Your task to perform on an android device: set the timer Image 0: 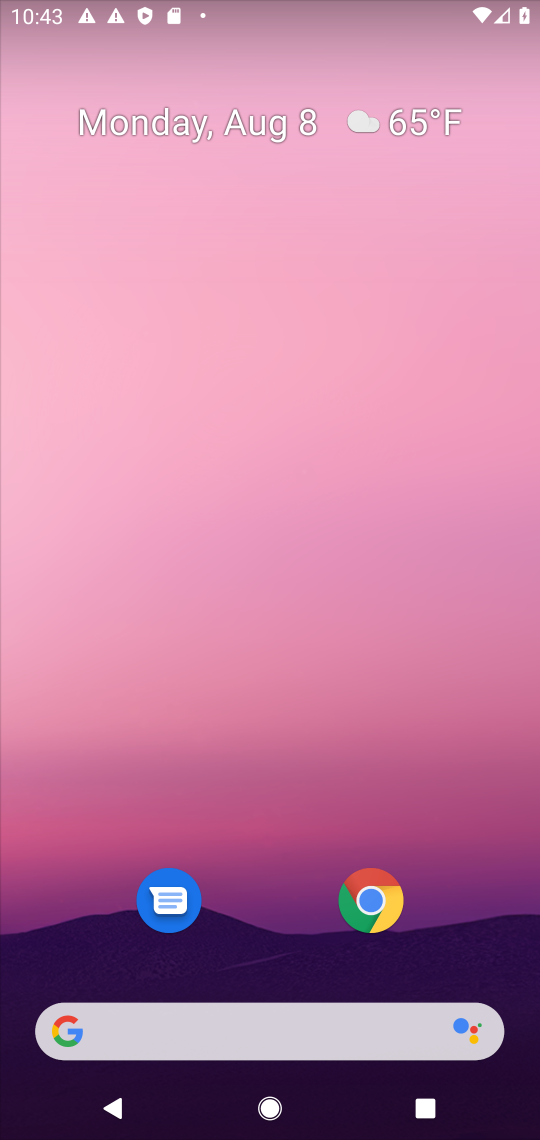
Step 0: drag from (296, 319) to (296, 108)
Your task to perform on an android device: set the timer Image 1: 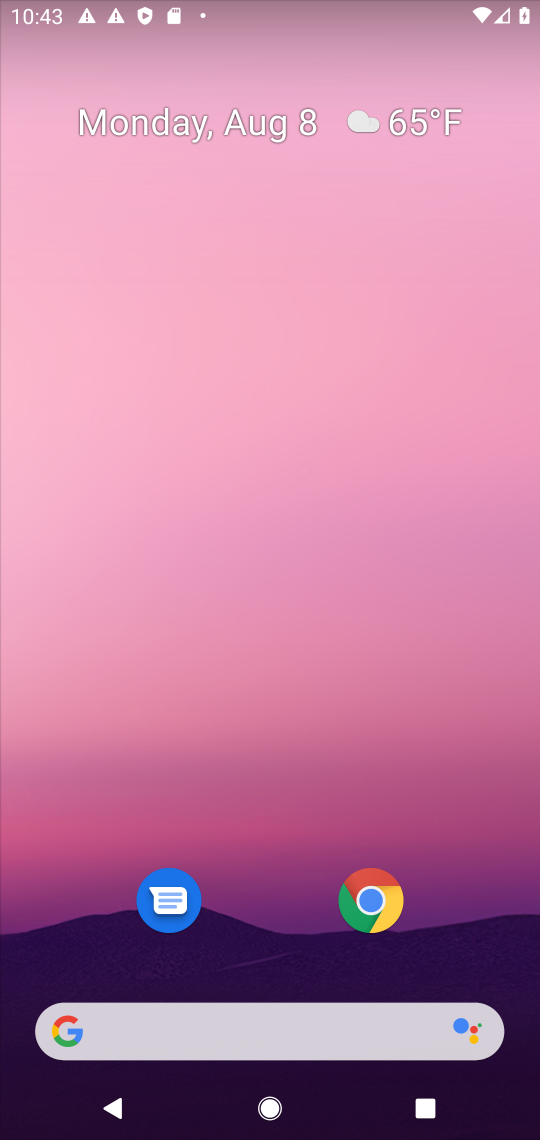
Step 1: drag from (273, 887) to (176, 38)
Your task to perform on an android device: set the timer Image 2: 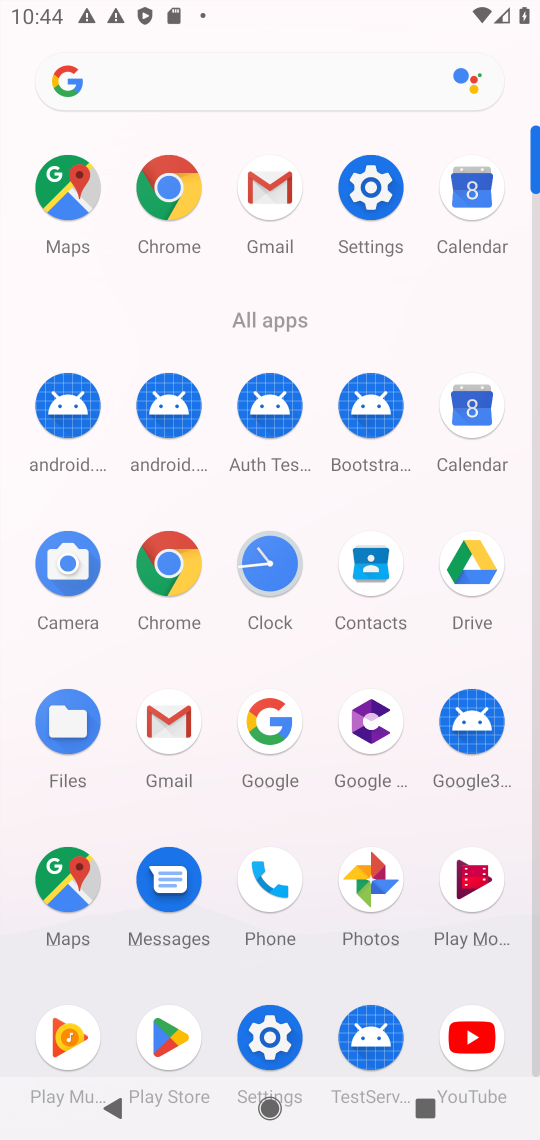
Step 2: click (263, 567)
Your task to perform on an android device: set the timer Image 3: 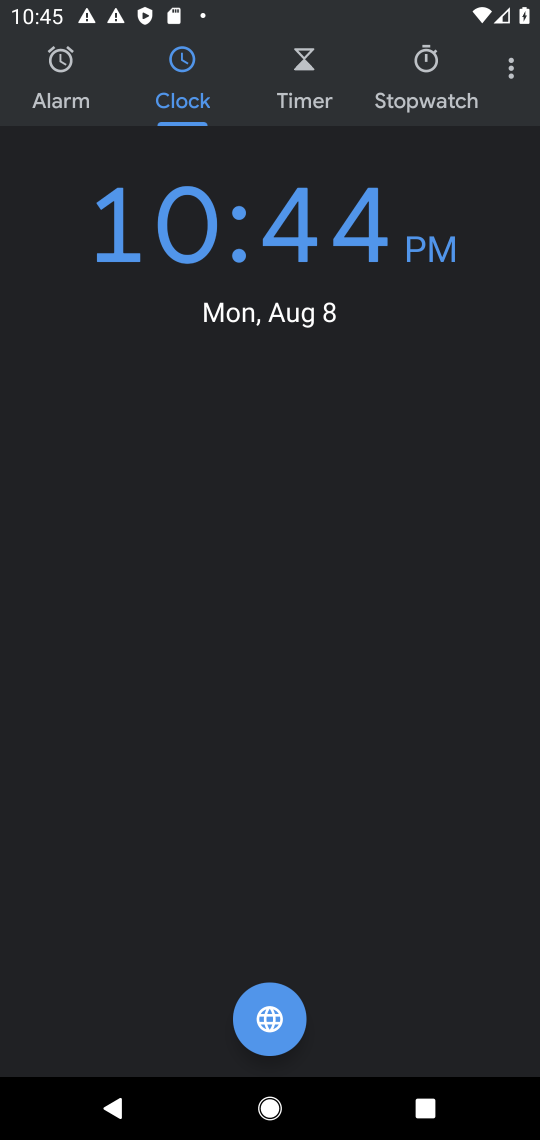
Step 3: click (297, 79)
Your task to perform on an android device: set the timer Image 4: 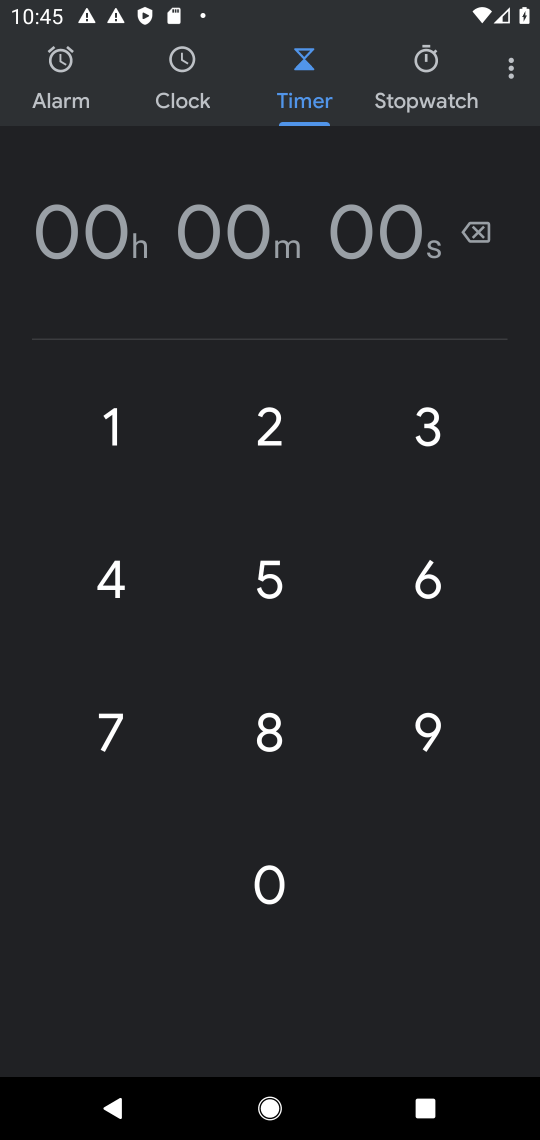
Step 4: click (111, 438)
Your task to perform on an android device: set the timer Image 5: 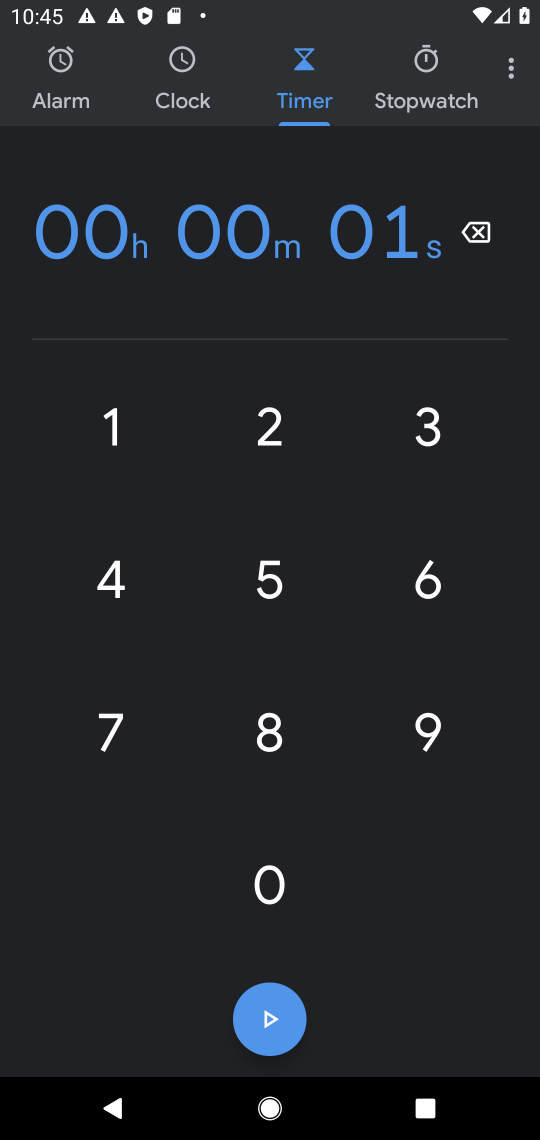
Step 5: click (278, 882)
Your task to perform on an android device: set the timer Image 6: 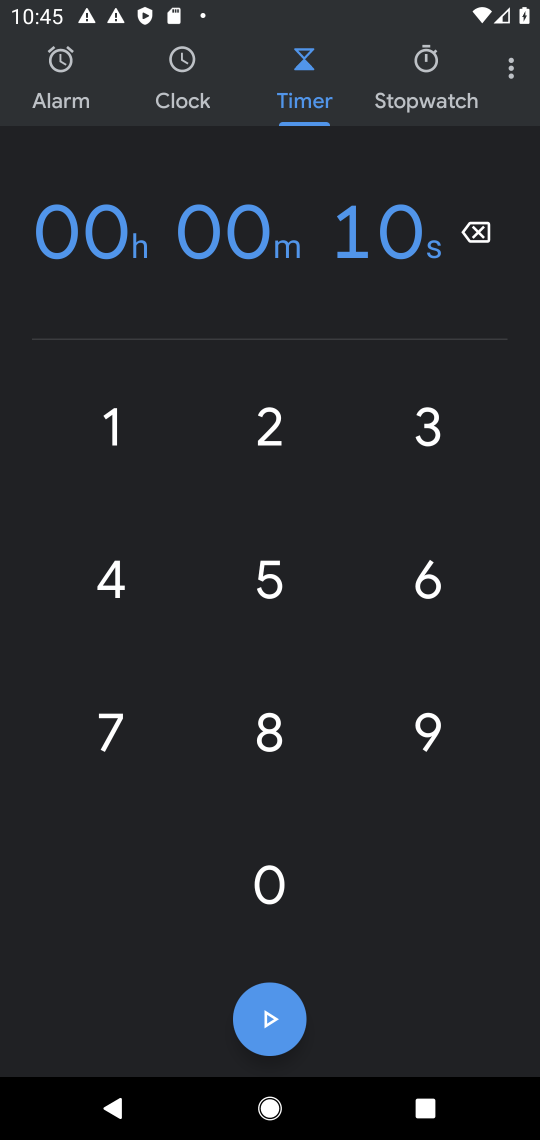
Step 6: click (278, 882)
Your task to perform on an android device: set the timer Image 7: 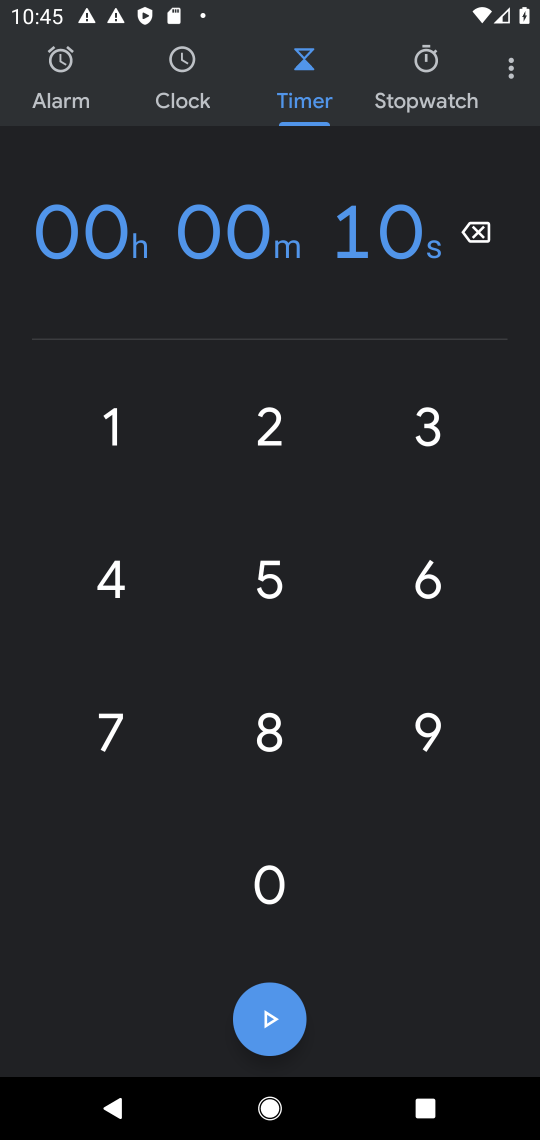
Step 7: click (278, 882)
Your task to perform on an android device: set the timer Image 8: 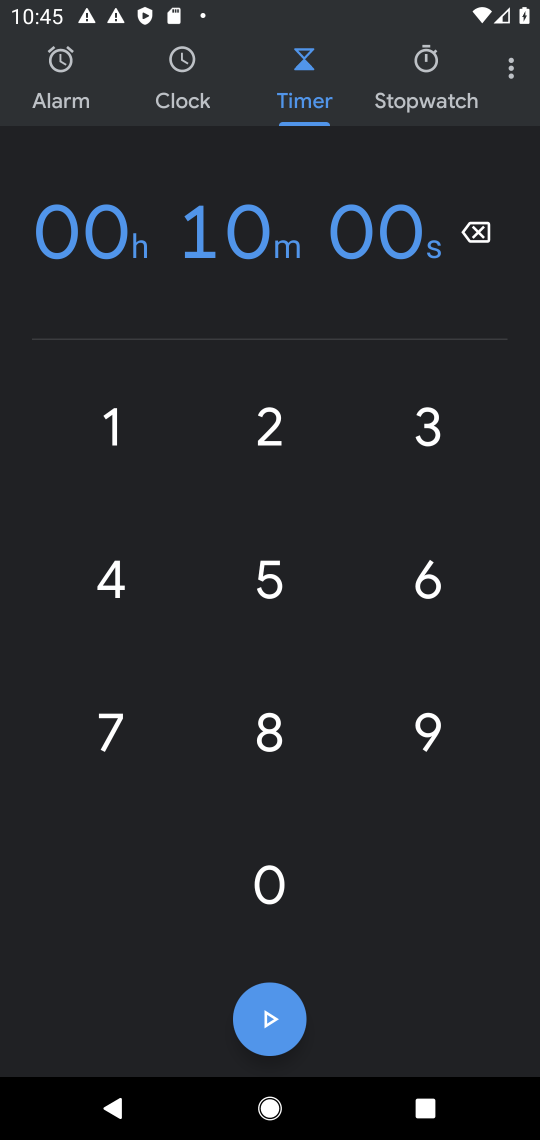
Step 8: click (275, 989)
Your task to perform on an android device: set the timer Image 9: 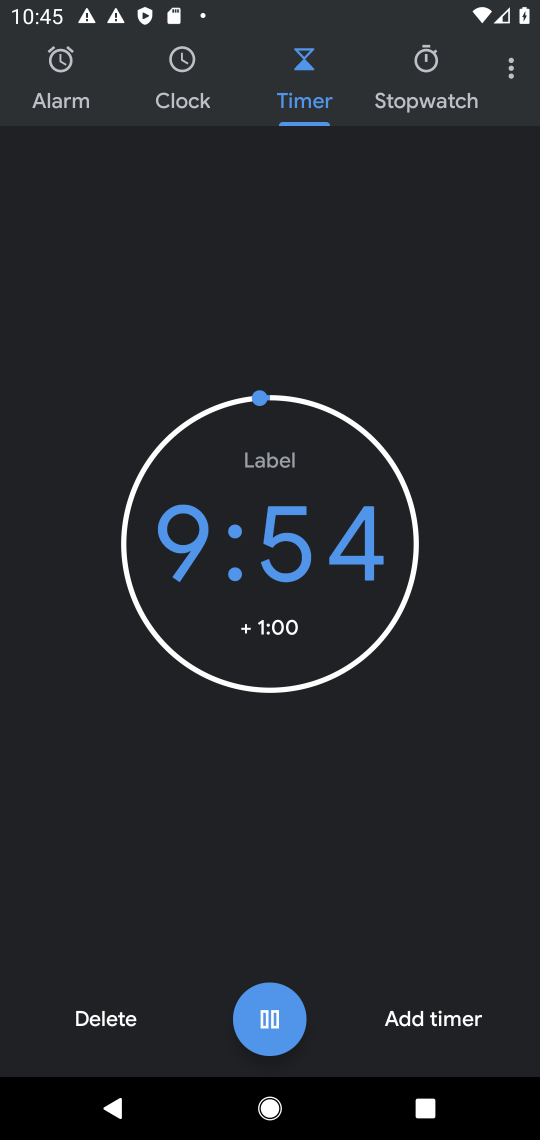
Step 9: click (461, 1011)
Your task to perform on an android device: set the timer Image 10: 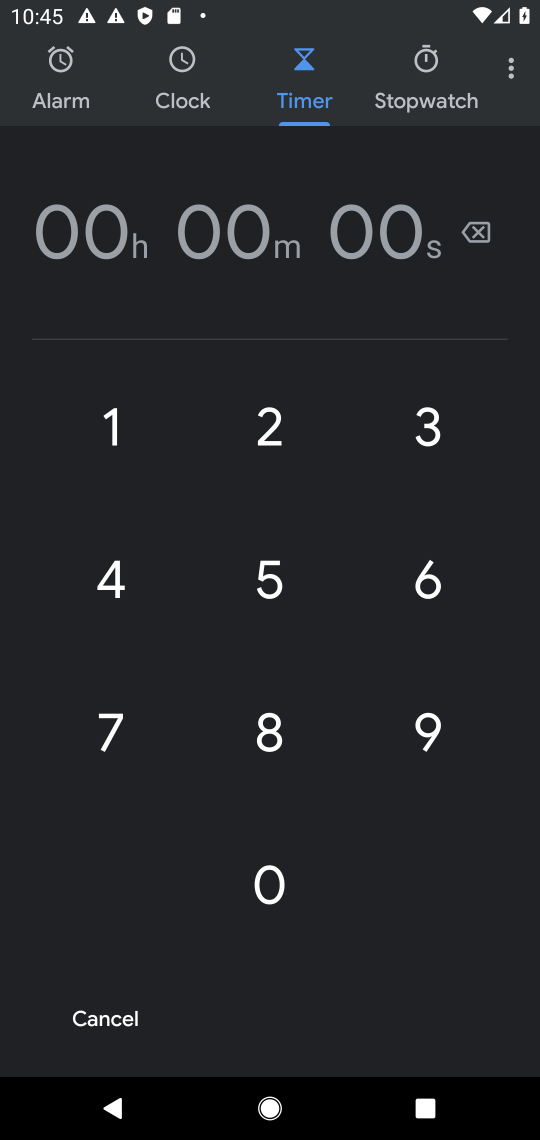
Step 10: task complete